Your task to perform on an android device: Open my contact list Image 0: 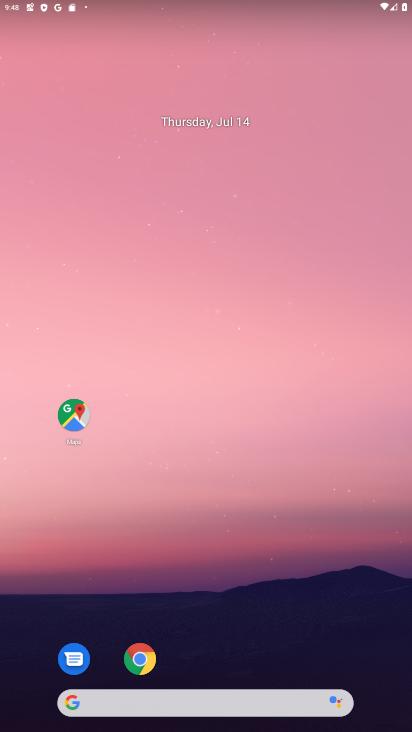
Step 0: drag from (293, 637) to (238, 96)
Your task to perform on an android device: Open my contact list Image 1: 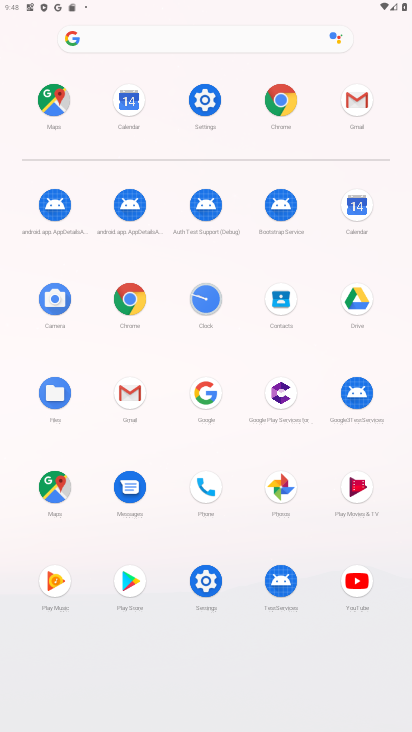
Step 1: click (280, 293)
Your task to perform on an android device: Open my contact list Image 2: 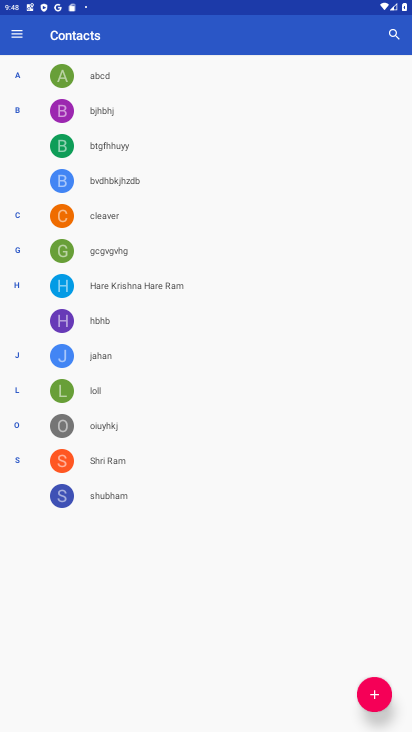
Step 2: task complete